Your task to perform on an android device: Open Google Chrome Image 0: 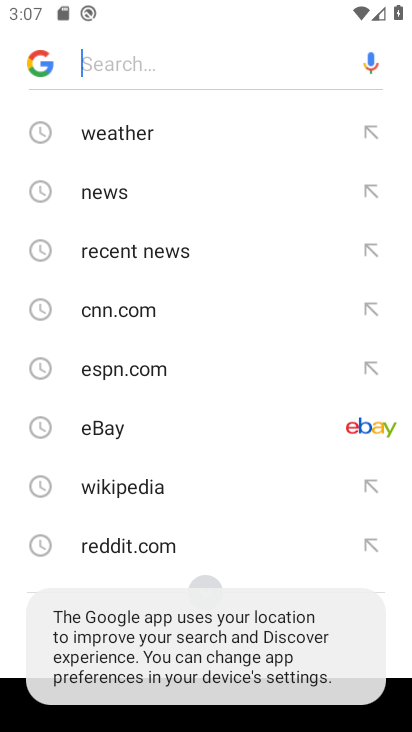
Step 0: press back button
Your task to perform on an android device: Open Google Chrome Image 1: 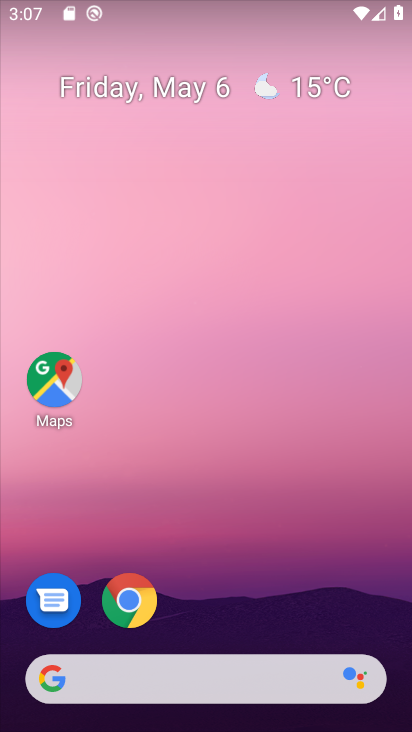
Step 1: click (114, 595)
Your task to perform on an android device: Open Google Chrome Image 2: 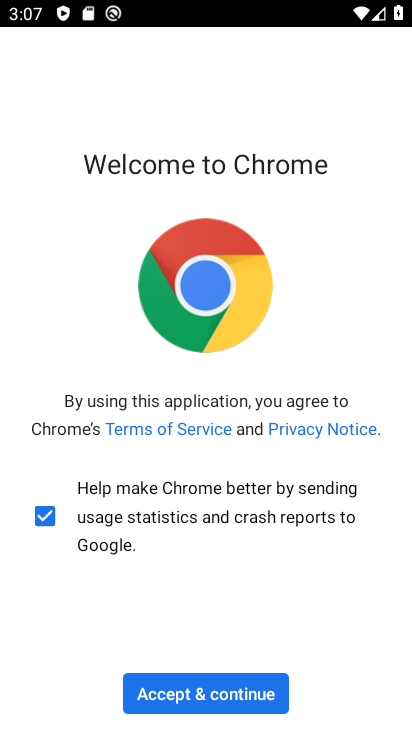
Step 2: click (228, 697)
Your task to perform on an android device: Open Google Chrome Image 3: 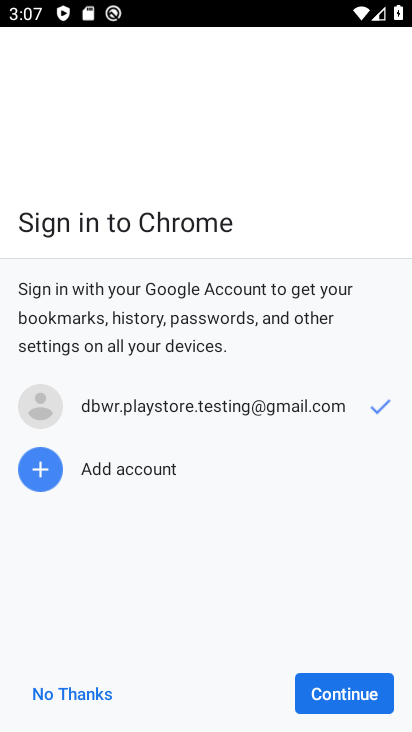
Step 3: click (307, 688)
Your task to perform on an android device: Open Google Chrome Image 4: 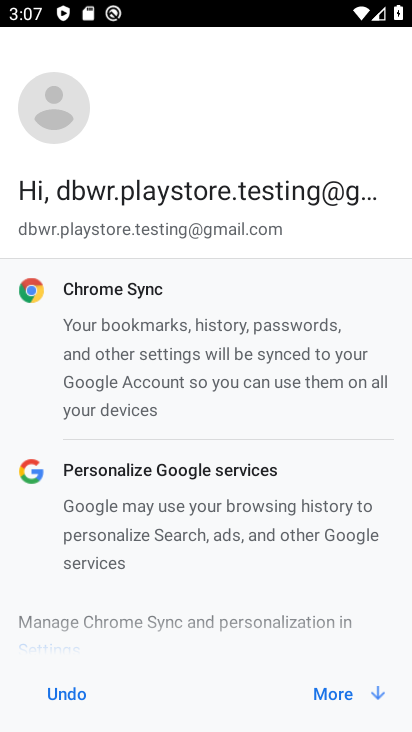
Step 4: click (325, 691)
Your task to perform on an android device: Open Google Chrome Image 5: 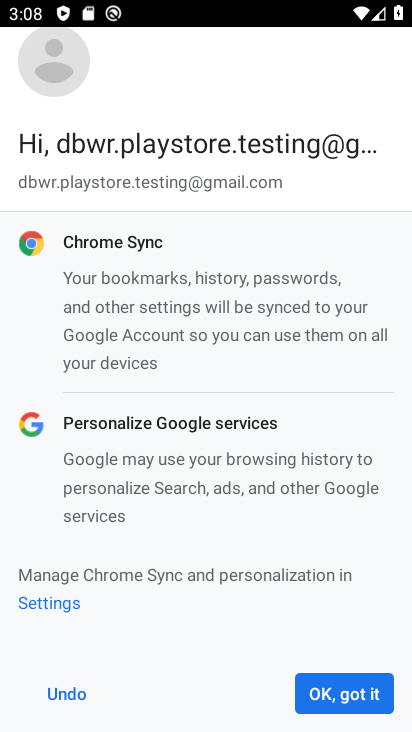
Step 5: click (325, 691)
Your task to perform on an android device: Open Google Chrome Image 6: 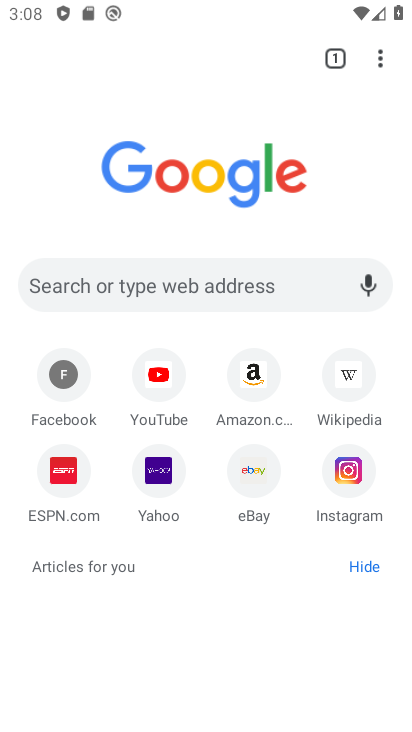
Step 6: task complete